Your task to perform on an android device: change the upload size in google photos Image 0: 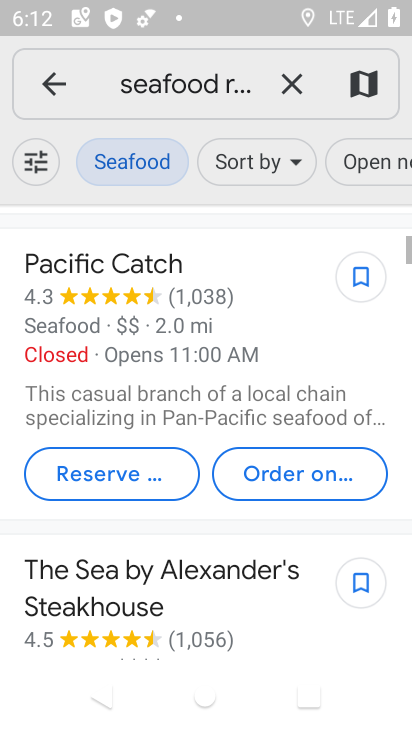
Step 0: press home button
Your task to perform on an android device: change the upload size in google photos Image 1: 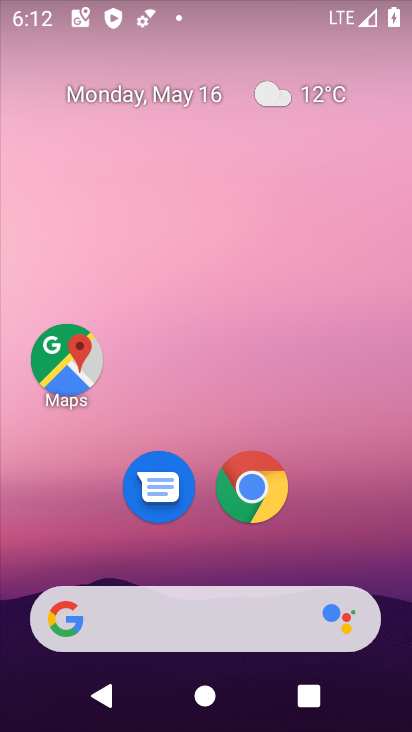
Step 1: drag from (366, 409) to (340, 94)
Your task to perform on an android device: change the upload size in google photos Image 2: 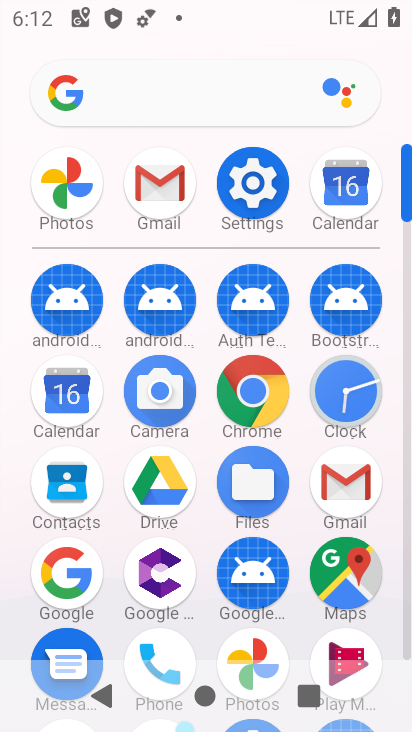
Step 2: click (255, 647)
Your task to perform on an android device: change the upload size in google photos Image 3: 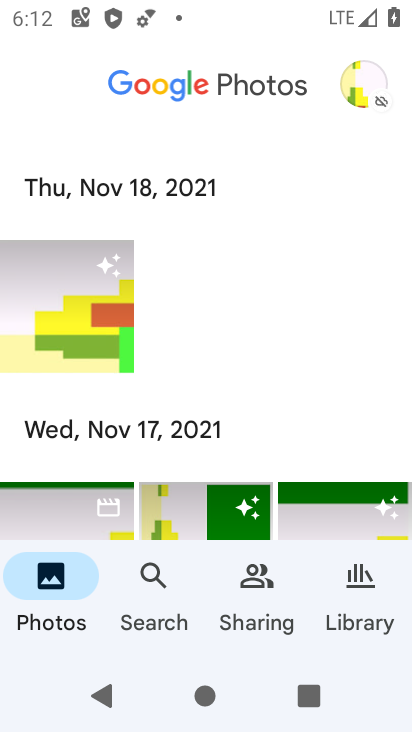
Step 3: click (348, 62)
Your task to perform on an android device: change the upload size in google photos Image 4: 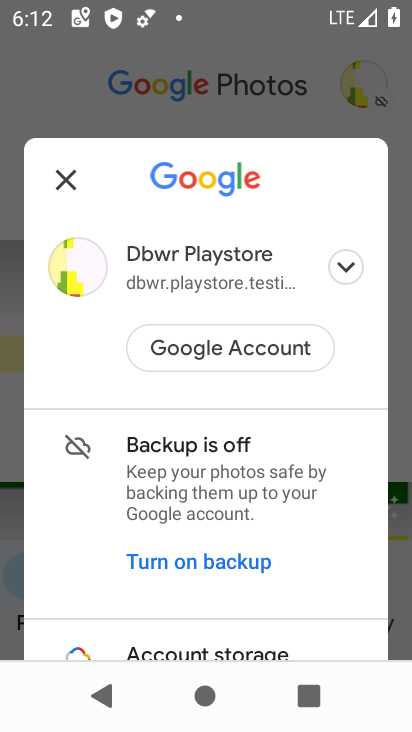
Step 4: drag from (250, 498) to (266, 99)
Your task to perform on an android device: change the upload size in google photos Image 5: 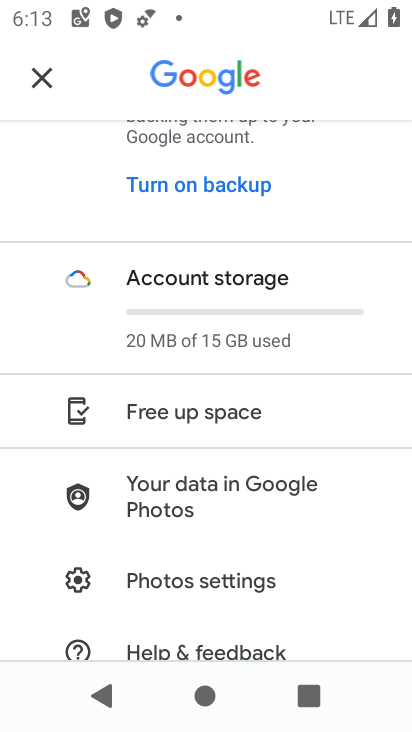
Step 5: drag from (209, 434) to (272, 224)
Your task to perform on an android device: change the upload size in google photos Image 6: 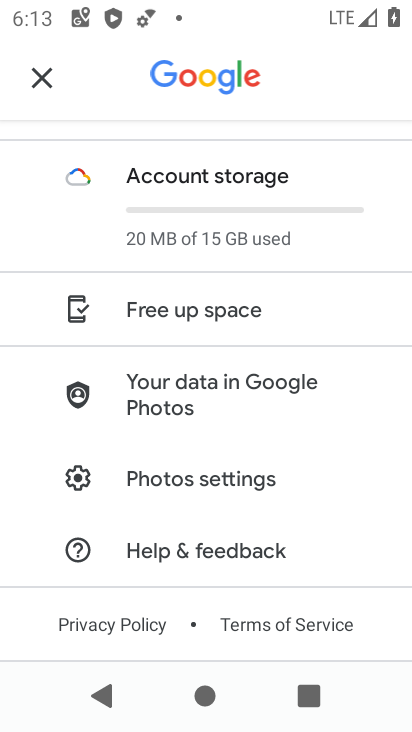
Step 6: click (176, 487)
Your task to perform on an android device: change the upload size in google photos Image 7: 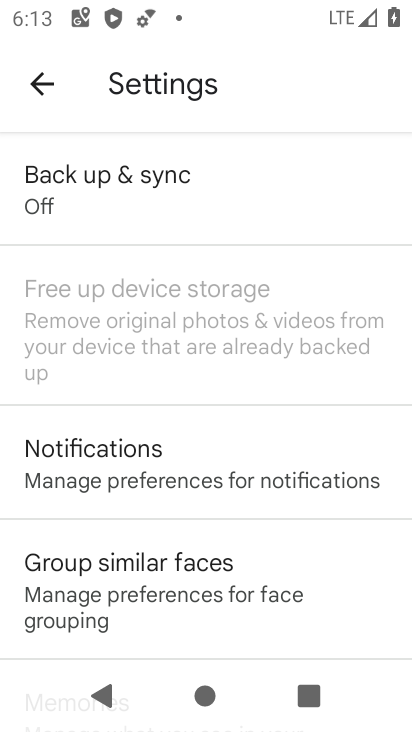
Step 7: drag from (240, 591) to (170, 614)
Your task to perform on an android device: change the upload size in google photos Image 8: 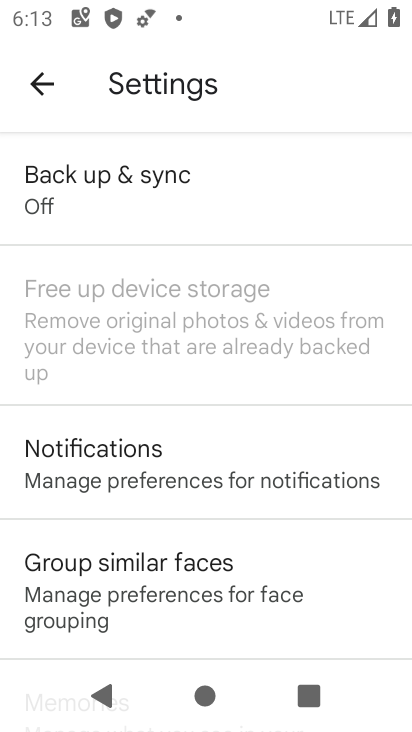
Step 8: click (163, 207)
Your task to perform on an android device: change the upload size in google photos Image 9: 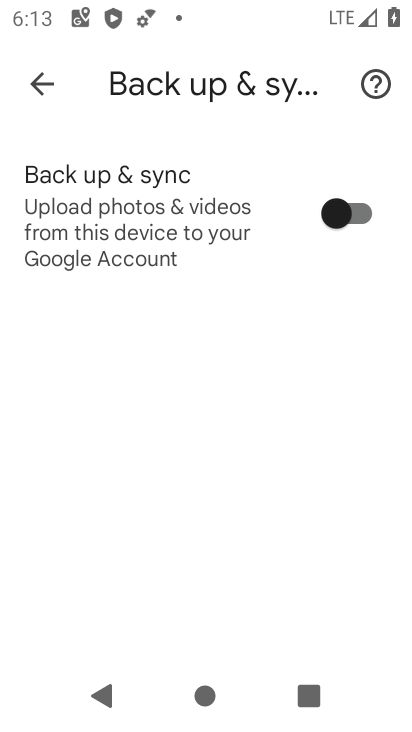
Step 9: click (347, 224)
Your task to perform on an android device: change the upload size in google photos Image 10: 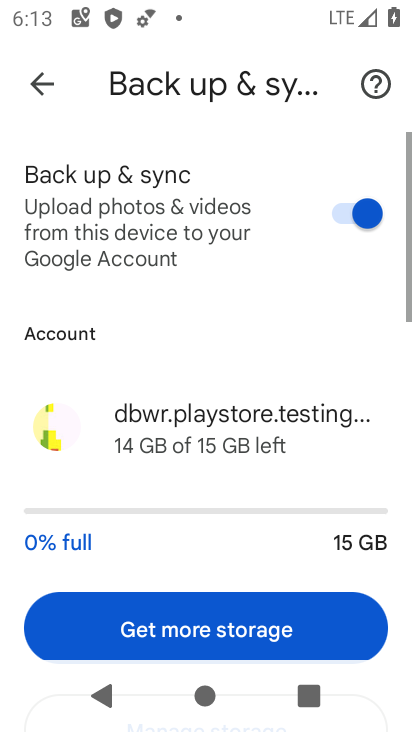
Step 10: drag from (219, 544) to (249, 115)
Your task to perform on an android device: change the upload size in google photos Image 11: 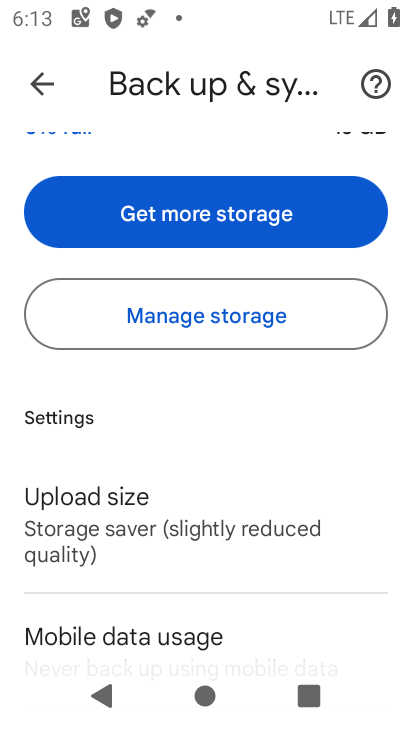
Step 11: click (149, 534)
Your task to perform on an android device: change the upload size in google photos Image 12: 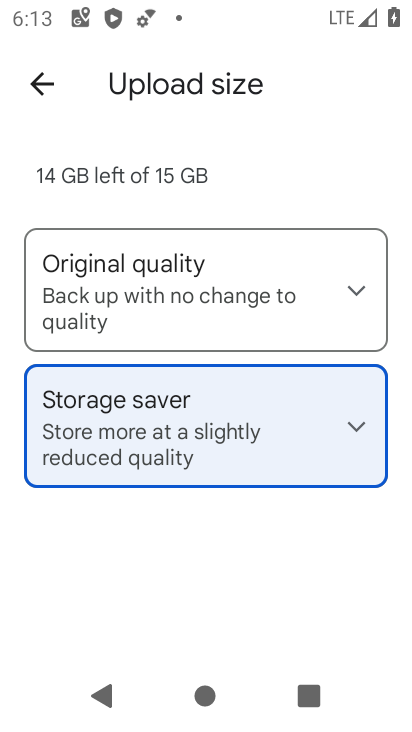
Step 12: click (158, 316)
Your task to perform on an android device: change the upload size in google photos Image 13: 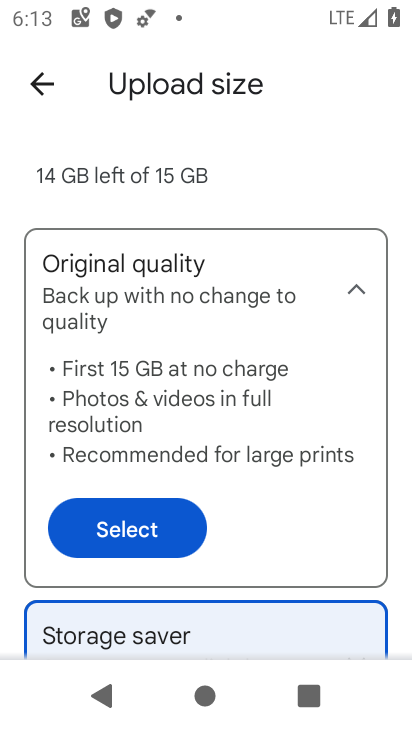
Step 13: click (120, 521)
Your task to perform on an android device: change the upload size in google photos Image 14: 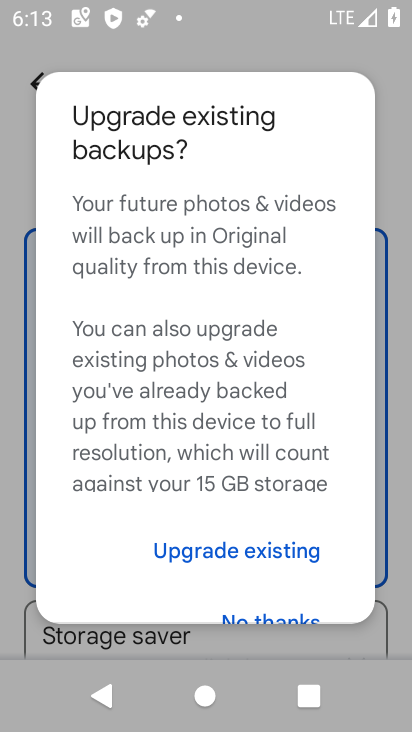
Step 14: click (241, 616)
Your task to perform on an android device: change the upload size in google photos Image 15: 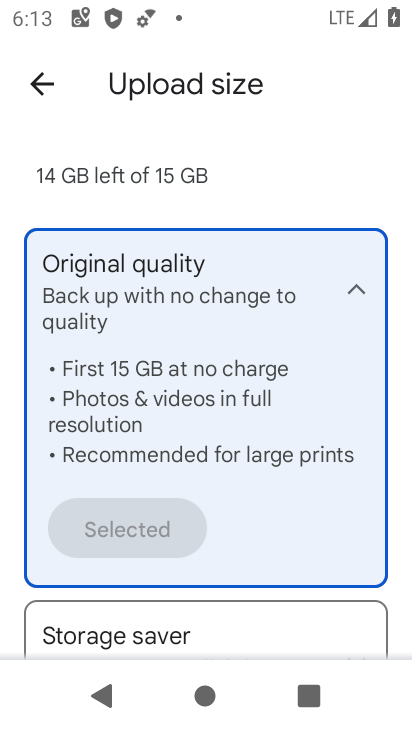
Step 15: task complete